Your task to perform on an android device: Open network settings Image 0: 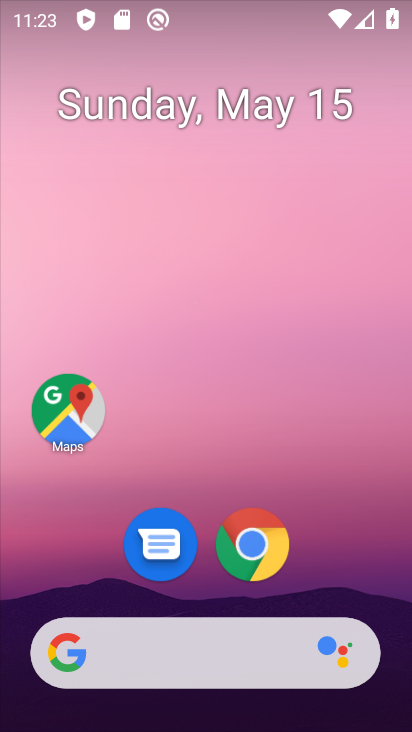
Step 0: drag from (339, 584) to (204, 147)
Your task to perform on an android device: Open network settings Image 1: 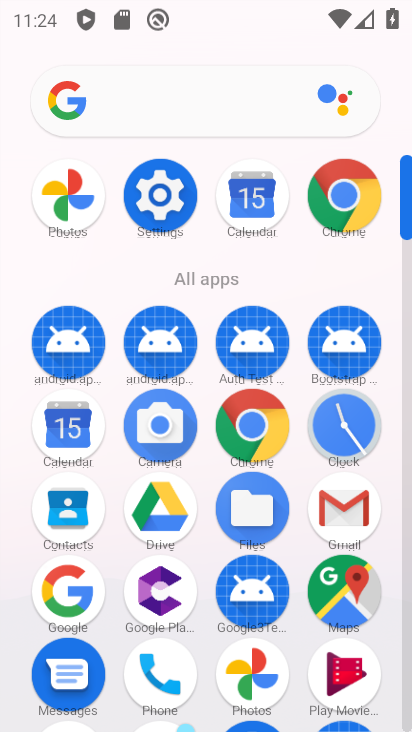
Step 1: click (146, 190)
Your task to perform on an android device: Open network settings Image 2: 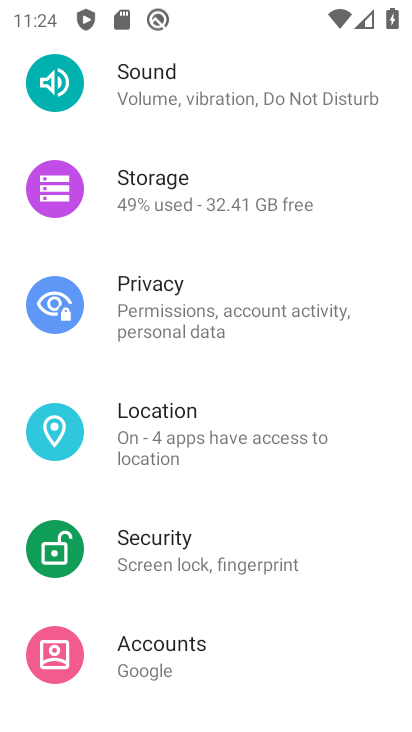
Step 2: drag from (198, 135) to (210, 661)
Your task to perform on an android device: Open network settings Image 3: 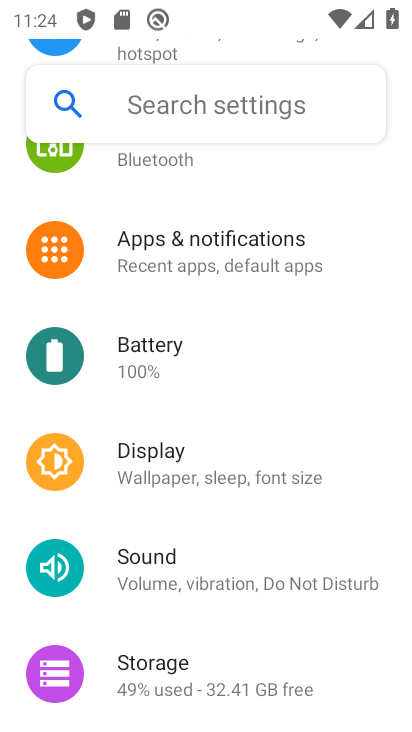
Step 3: drag from (243, 200) to (250, 645)
Your task to perform on an android device: Open network settings Image 4: 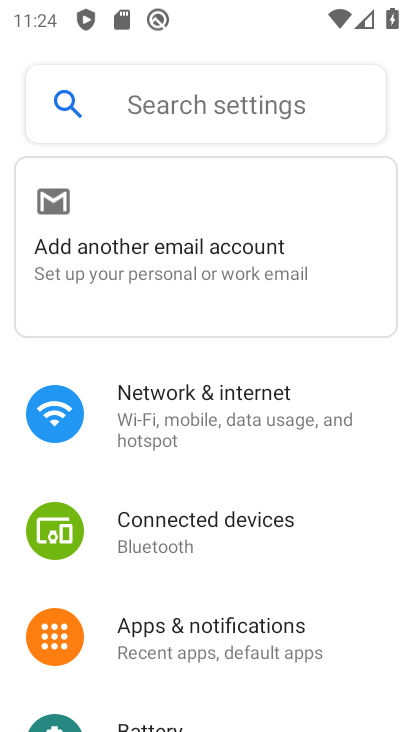
Step 4: click (265, 395)
Your task to perform on an android device: Open network settings Image 5: 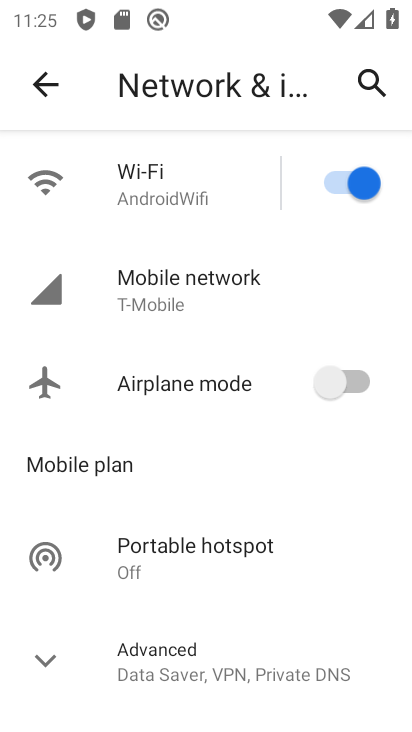
Step 5: task complete